Your task to perform on an android device: turn pop-ups off in chrome Image 0: 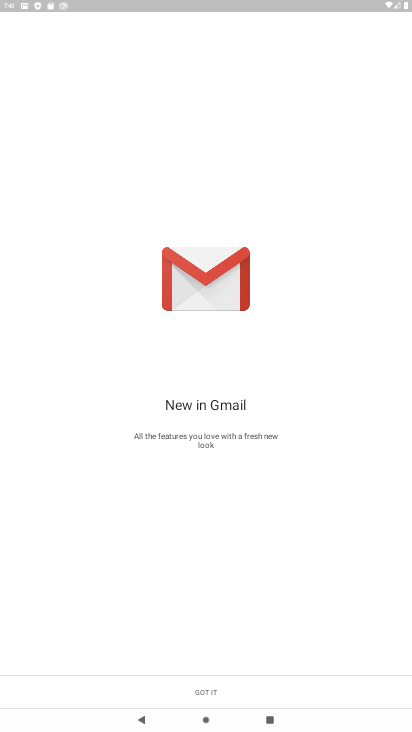
Step 0: press home button
Your task to perform on an android device: turn pop-ups off in chrome Image 1: 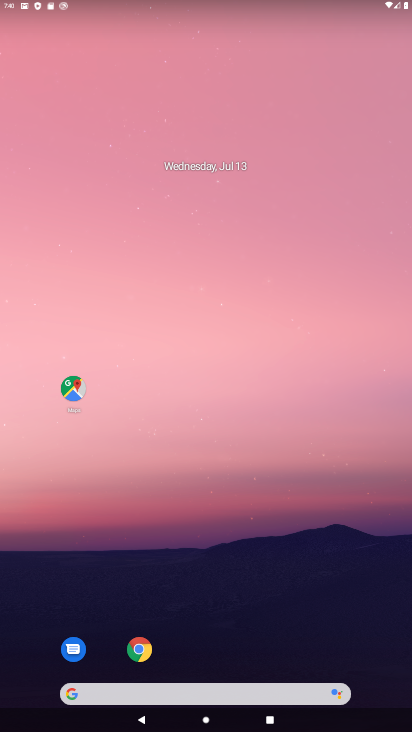
Step 1: click (151, 649)
Your task to perform on an android device: turn pop-ups off in chrome Image 2: 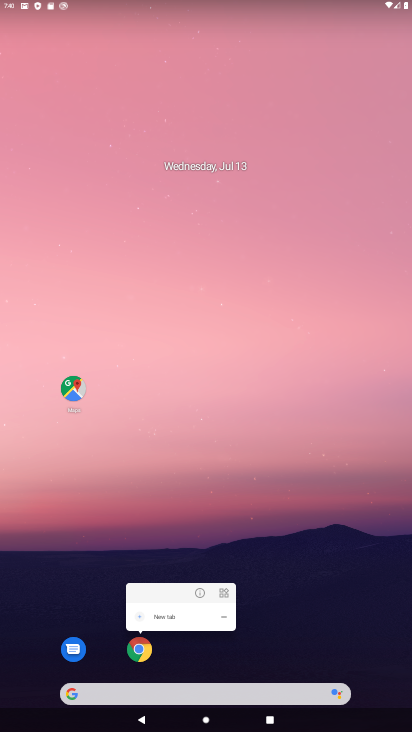
Step 2: click (152, 650)
Your task to perform on an android device: turn pop-ups off in chrome Image 3: 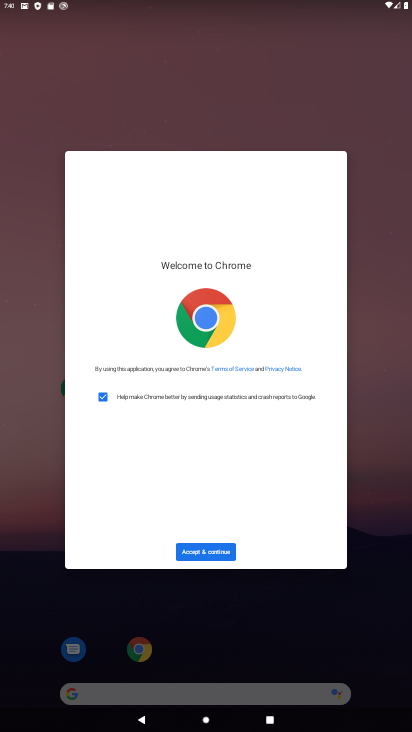
Step 3: click (209, 547)
Your task to perform on an android device: turn pop-ups off in chrome Image 4: 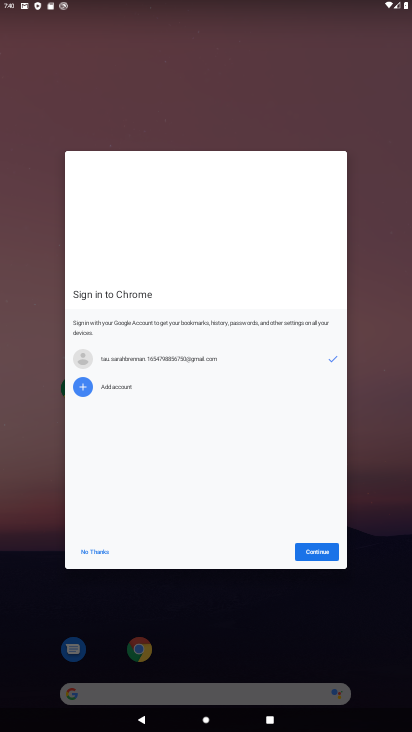
Step 4: click (316, 542)
Your task to perform on an android device: turn pop-ups off in chrome Image 5: 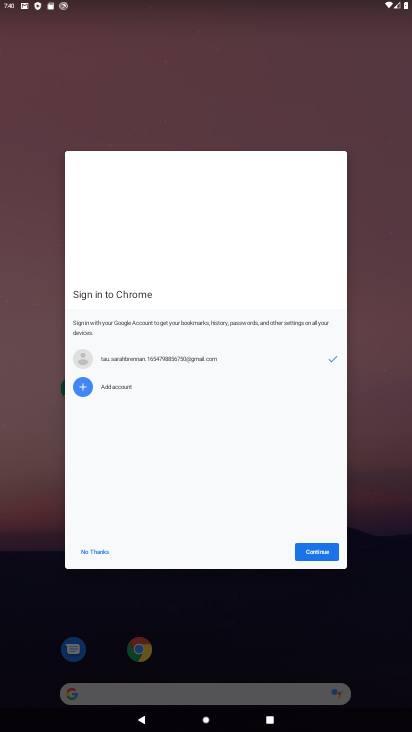
Step 5: click (306, 553)
Your task to perform on an android device: turn pop-ups off in chrome Image 6: 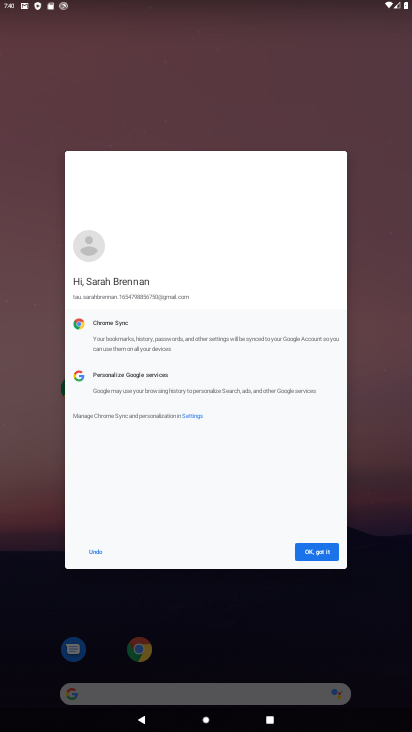
Step 6: click (303, 549)
Your task to perform on an android device: turn pop-ups off in chrome Image 7: 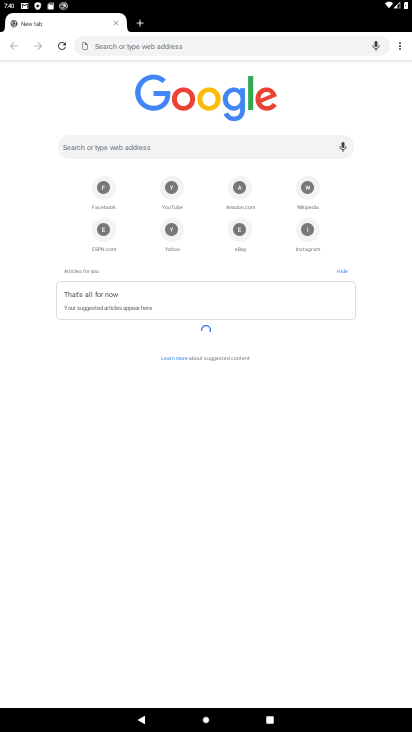
Step 7: click (398, 42)
Your task to perform on an android device: turn pop-ups off in chrome Image 8: 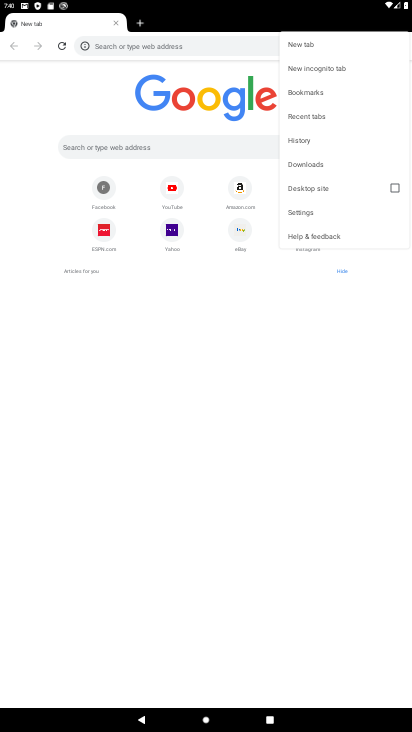
Step 8: click (306, 211)
Your task to perform on an android device: turn pop-ups off in chrome Image 9: 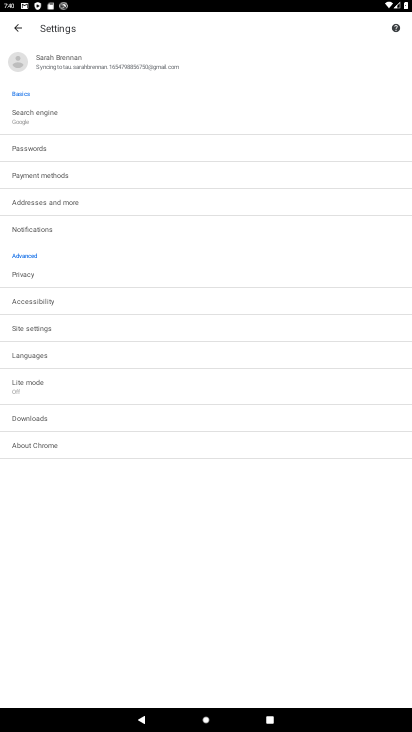
Step 9: click (47, 327)
Your task to perform on an android device: turn pop-ups off in chrome Image 10: 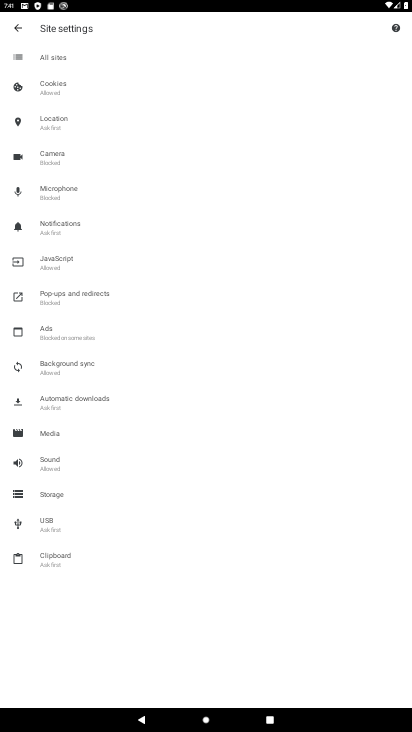
Step 10: click (58, 298)
Your task to perform on an android device: turn pop-ups off in chrome Image 11: 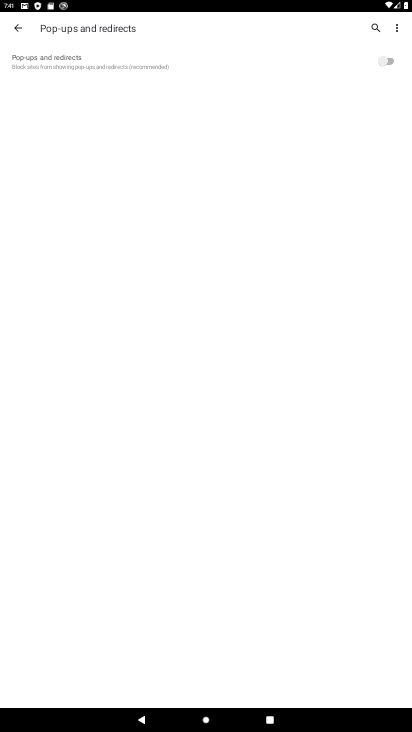
Step 11: task complete